Your task to perform on an android device: Show me recent news Image 0: 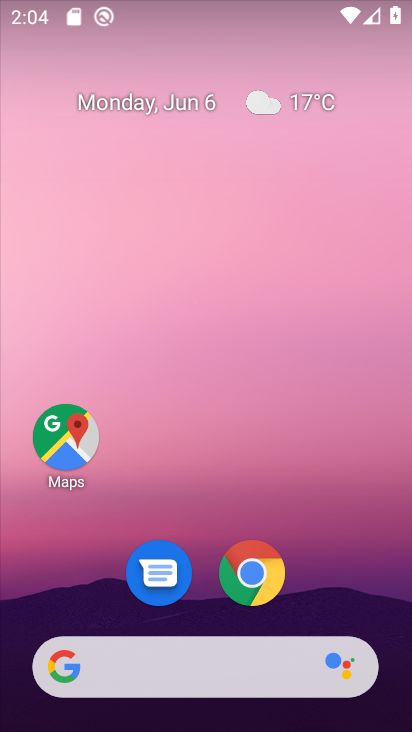
Step 0: drag from (384, 625) to (267, 27)
Your task to perform on an android device: Show me recent news Image 1: 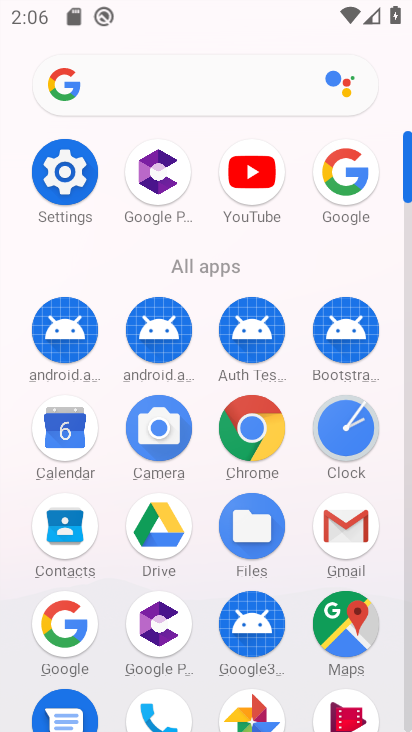
Step 1: click (46, 625)
Your task to perform on an android device: Show me recent news Image 2: 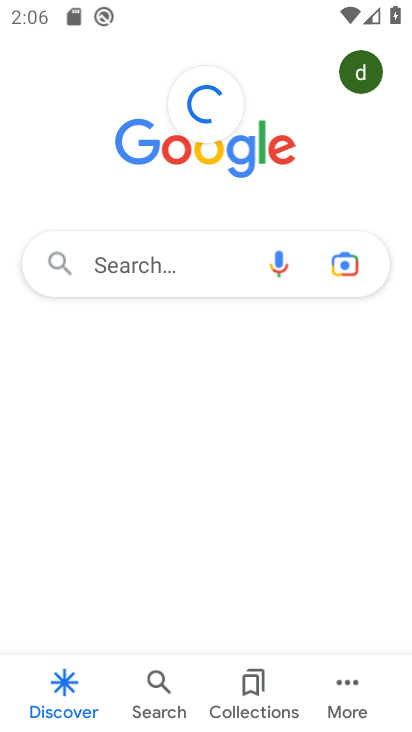
Step 2: click (142, 270)
Your task to perform on an android device: Show me recent news Image 3: 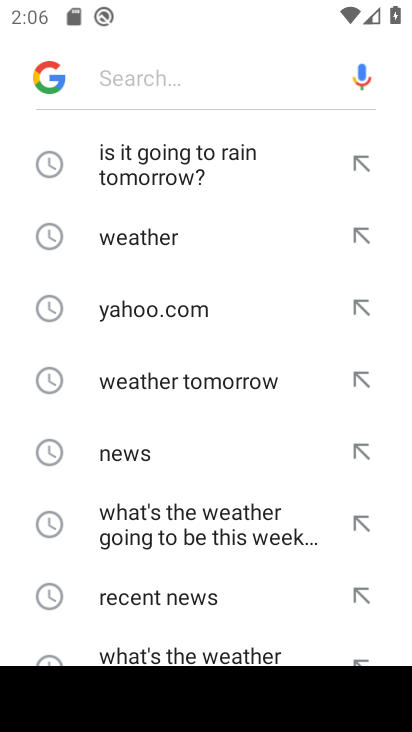
Step 3: click (188, 587)
Your task to perform on an android device: Show me recent news Image 4: 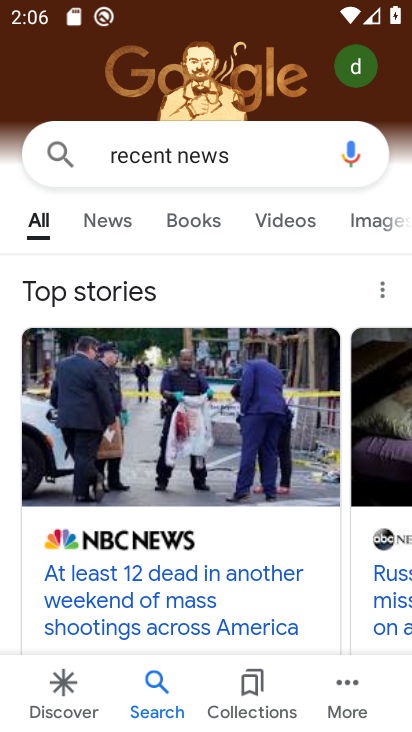
Step 4: task complete